Your task to perform on an android device: change the clock display to digital Image 0: 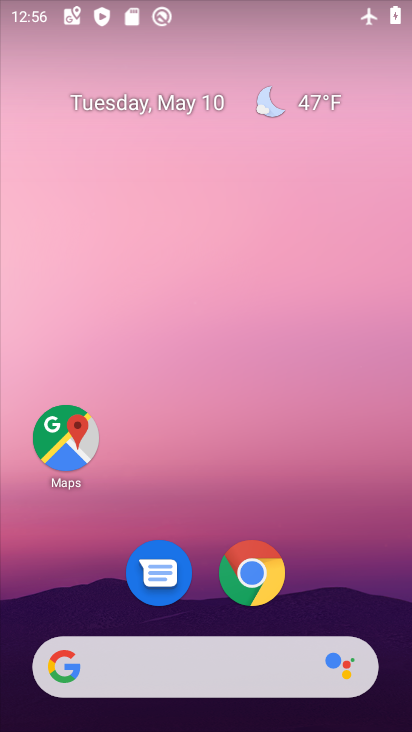
Step 0: drag from (210, 622) to (209, 91)
Your task to perform on an android device: change the clock display to digital Image 1: 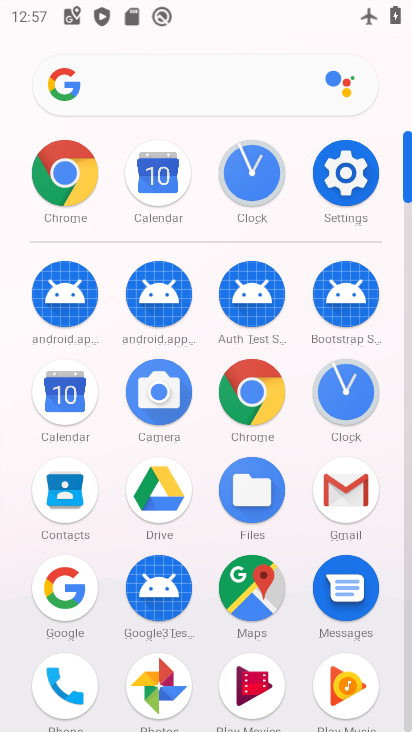
Step 1: click (337, 396)
Your task to perform on an android device: change the clock display to digital Image 2: 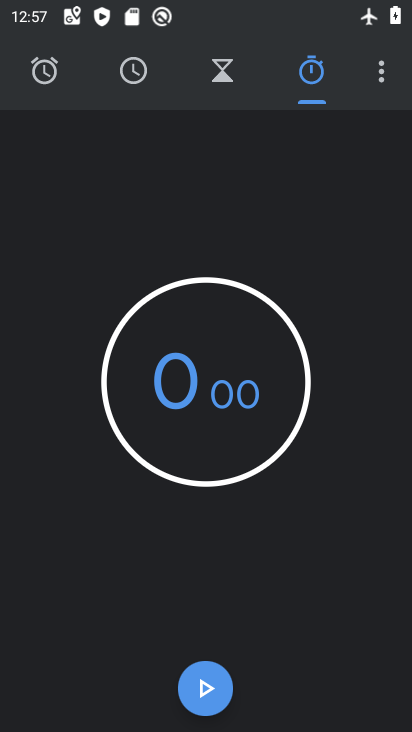
Step 2: click (379, 70)
Your task to perform on an android device: change the clock display to digital Image 3: 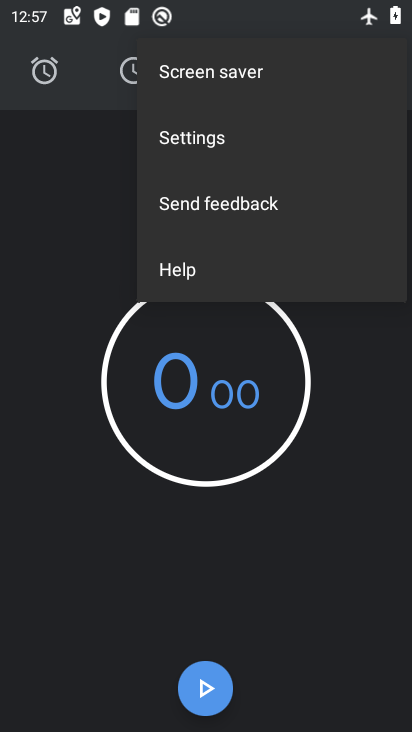
Step 3: click (225, 146)
Your task to perform on an android device: change the clock display to digital Image 4: 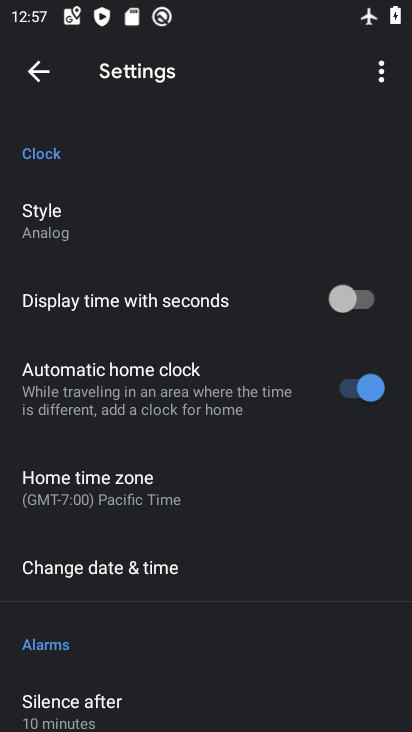
Step 4: drag from (225, 635) to (245, 285)
Your task to perform on an android device: change the clock display to digital Image 5: 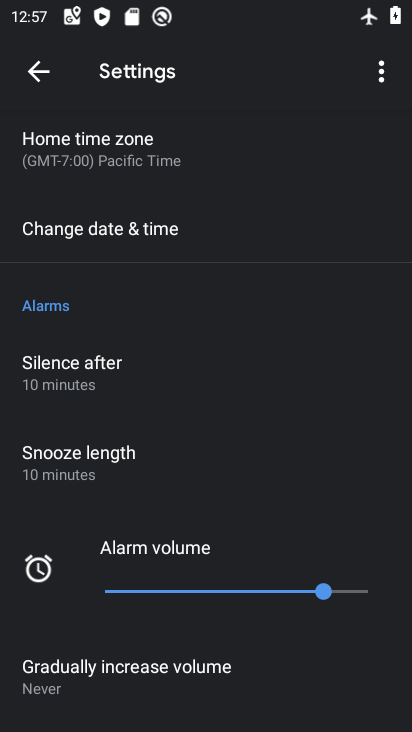
Step 5: drag from (295, 284) to (379, 712)
Your task to perform on an android device: change the clock display to digital Image 6: 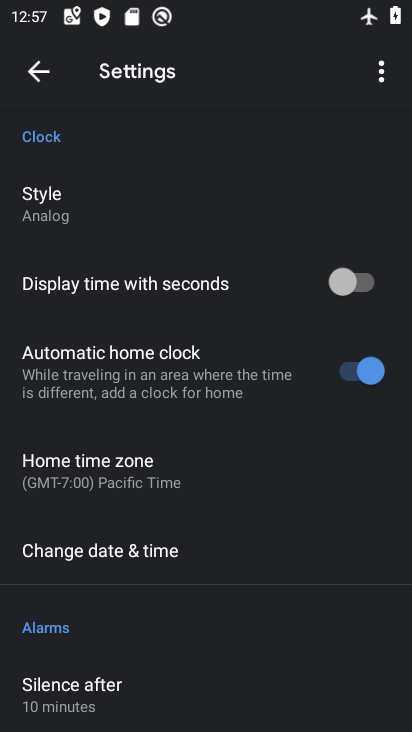
Step 6: click (110, 203)
Your task to perform on an android device: change the clock display to digital Image 7: 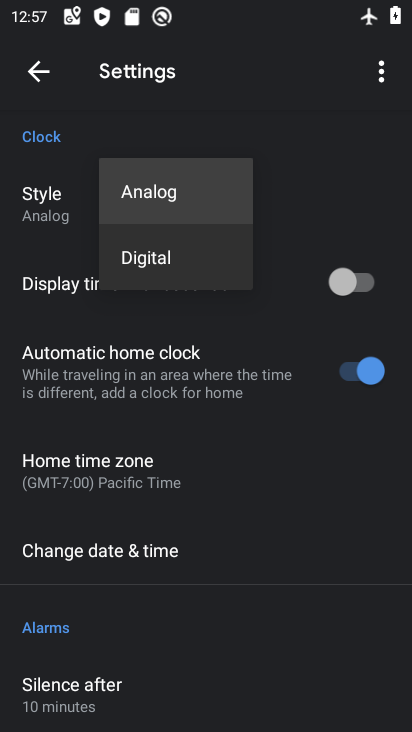
Step 7: click (164, 265)
Your task to perform on an android device: change the clock display to digital Image 8: 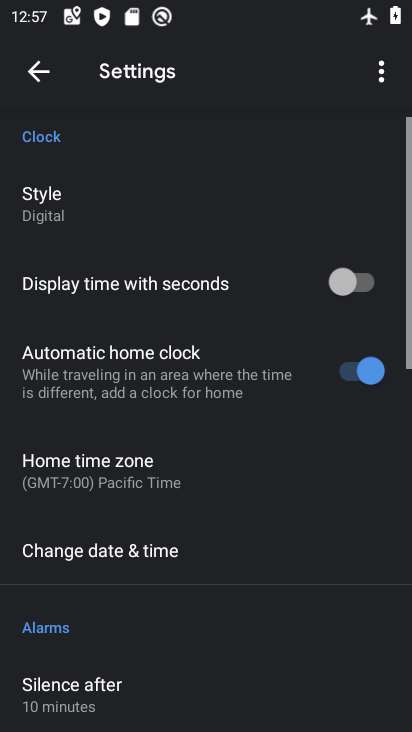
Step 8: task complete